Your task to perform on an android device: Open Youtube and go to "Your channel" Image 0: 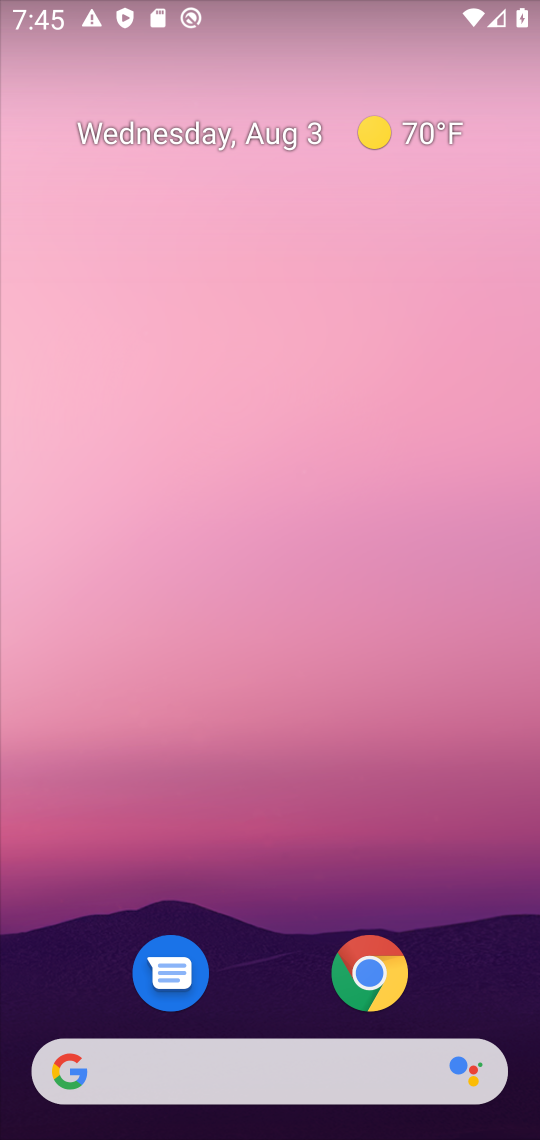
Step 0: press home button
Your task to perform on an android device: Open Youtube and go to "Your channel" Image 1: 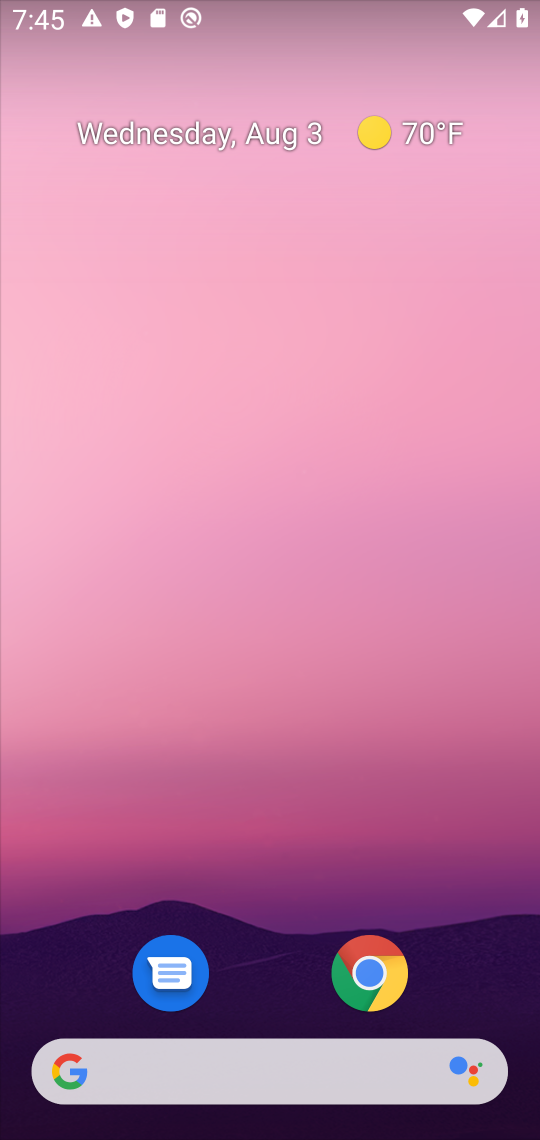
Step 1: drag from (285, 1008) to (355, 145)
Your task to perform on an android device: Open Youtube and go to "Your channel" Image 2: 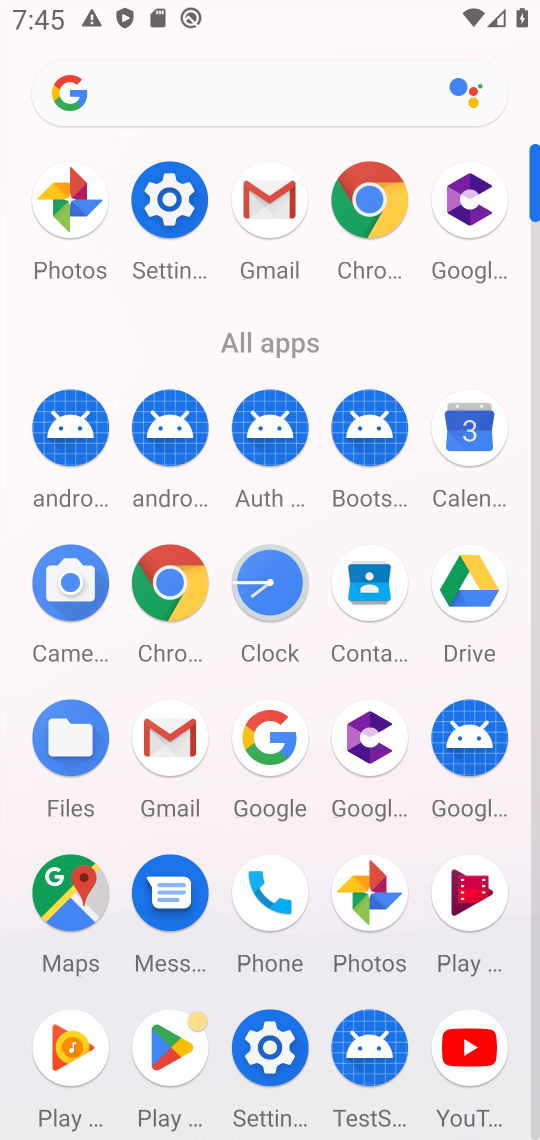
Step 2: click (470, 1034)
Your task to perform on an android device: Open Youtube and go to "Your channel" Image 3: 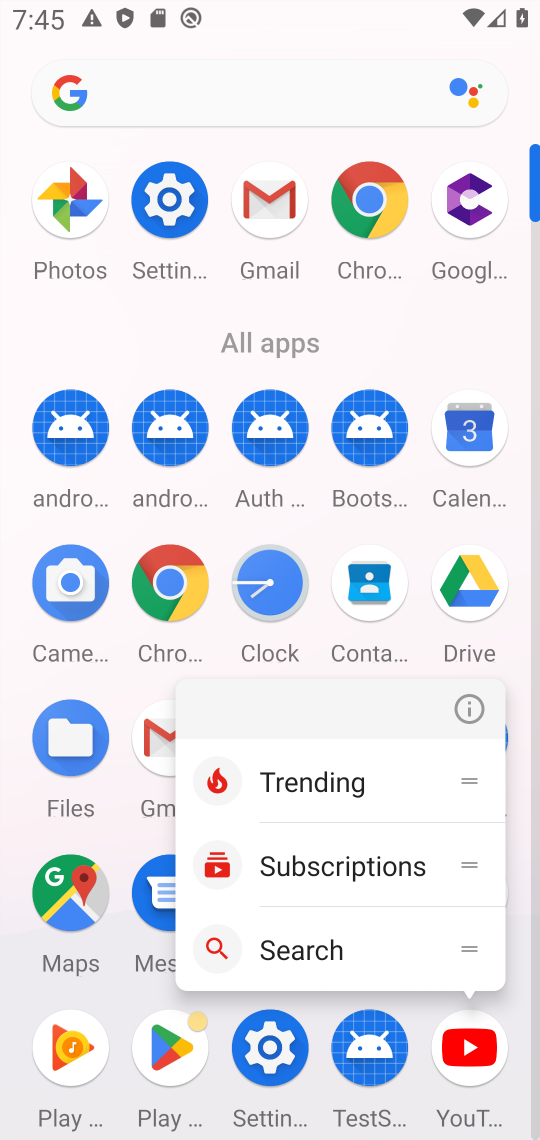
Step 3: click (470, 1034)
Your task to perform on an android device: Open Youtube and go to "Your channel" Image 4: 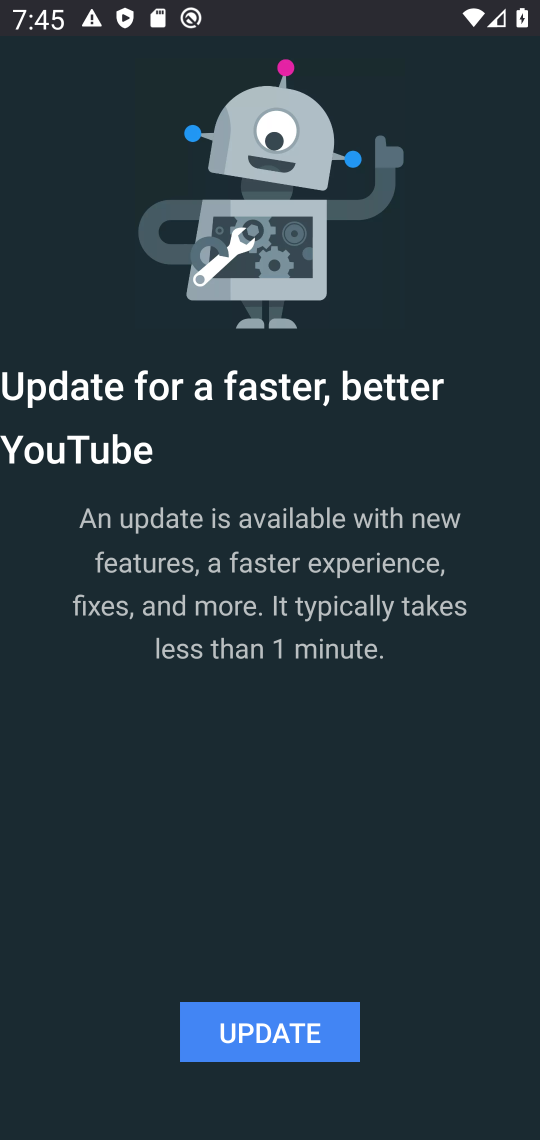
Step 4: click (262, 1025)
Your task to perform on an android device: Open Youtube and go to "Your channel" Image 5: 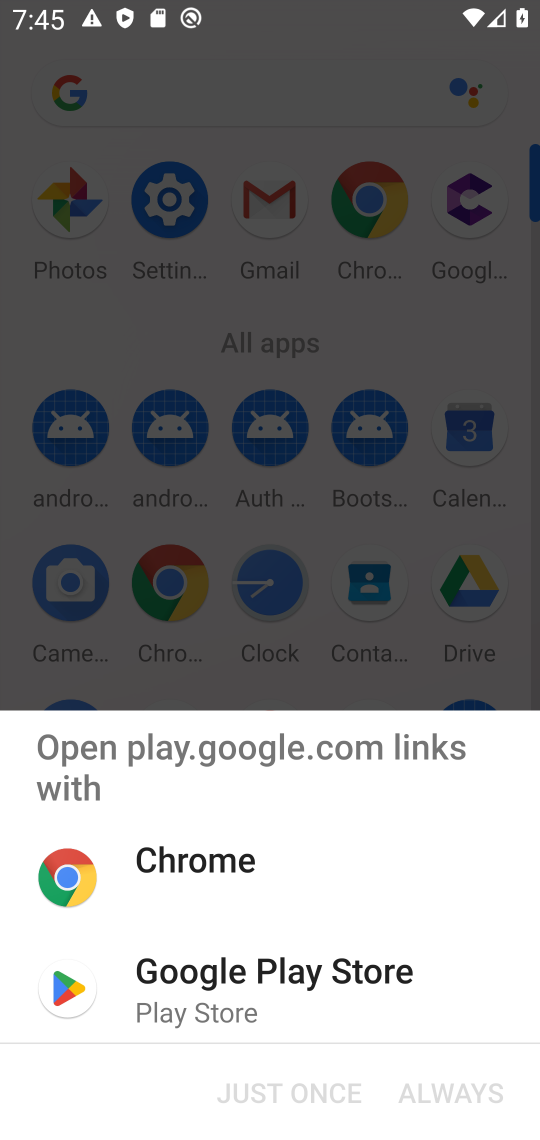
Step 5: click (177, 987)
Your task to perform on an android device: Open Youtube and go to "Your channel" Image 6: 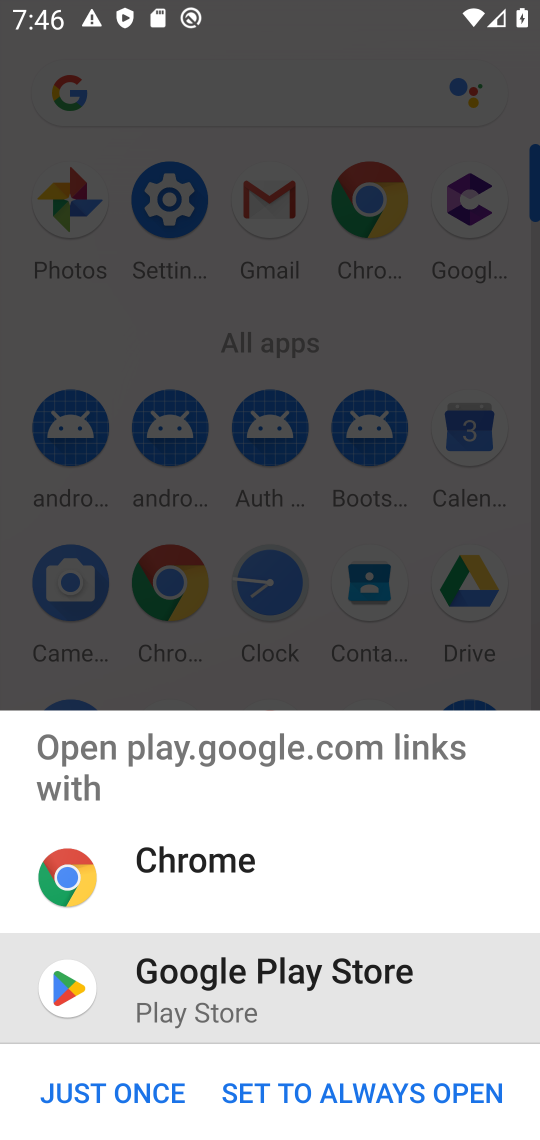
Step 6: click (124, 1096)
Your task to perform on an android device: Open Youtube and go to "Your channel" Image 7: 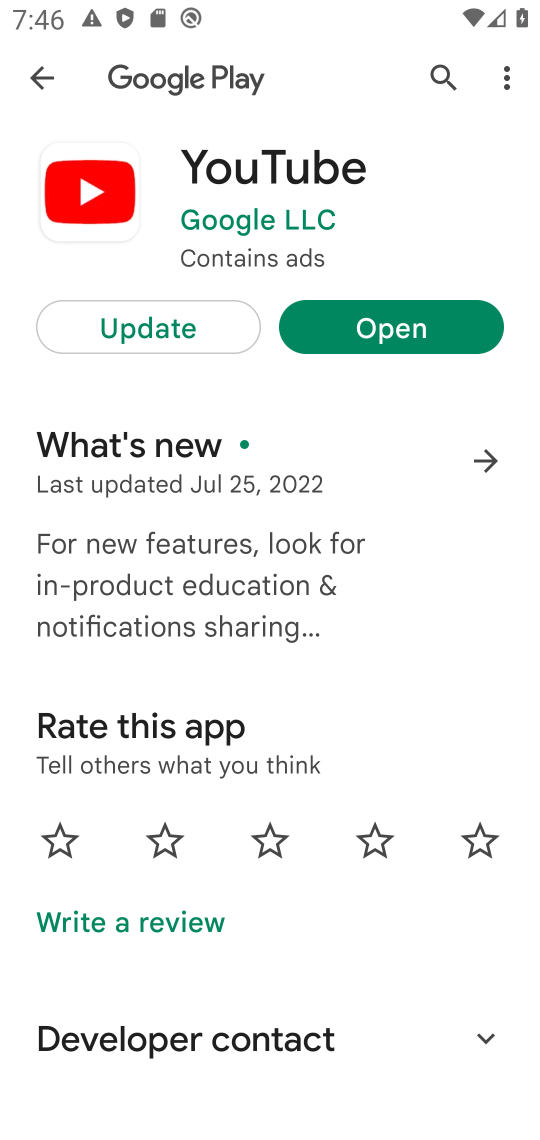
Step 7: click (146, 327)
Your task to perform on an android device: Open Youtube and go to "Your channel" Image 8: 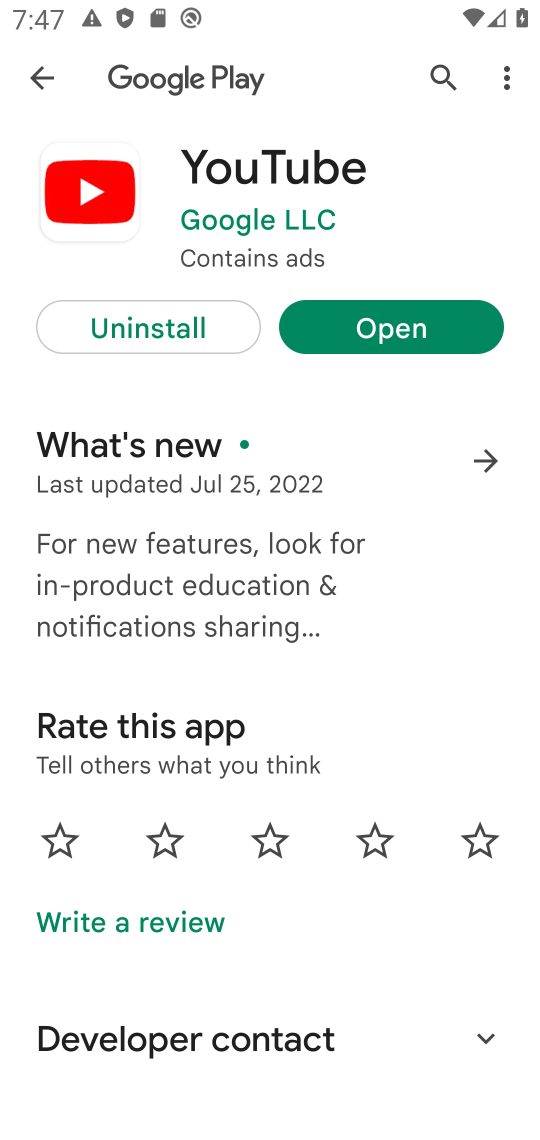
Step 8: click (388, 322)
Your task to perform on an android device: Open Youtube and go to "Your channel" Image 9: 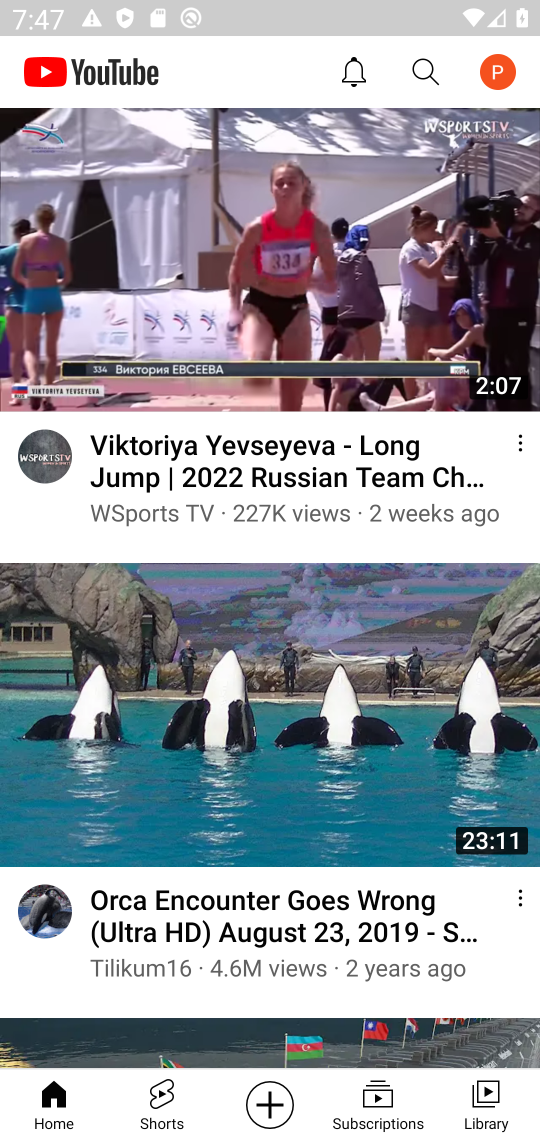
Step 9: click (491, 68)
Your task to perform on an android device: Open Youtube and go to "Your channel" Image 10: 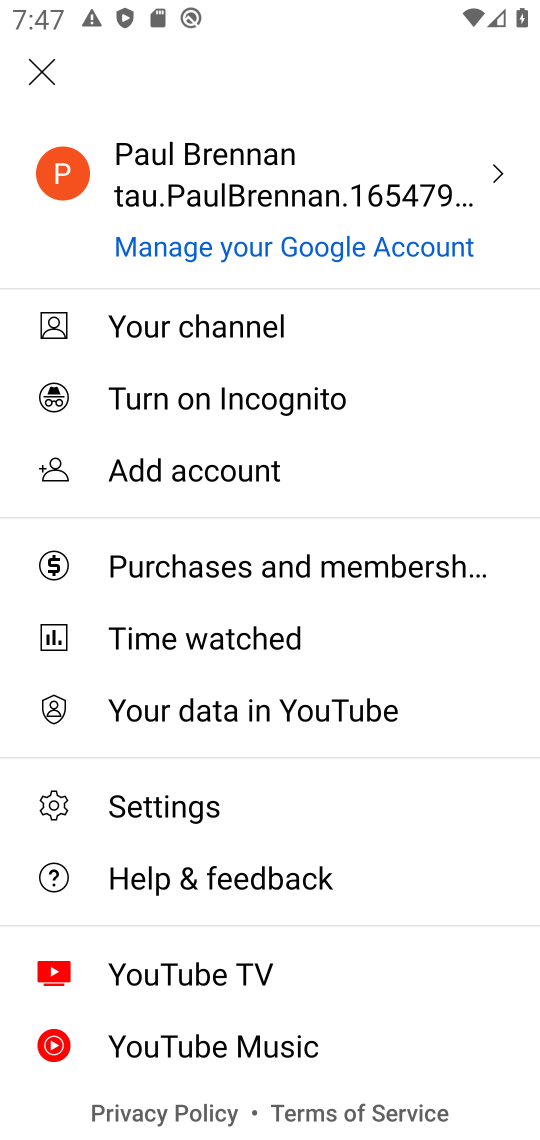
Step 10: click (201, 321)
Your task to perform on an android device: Open Youtube and go to "Your channel" Image 11: 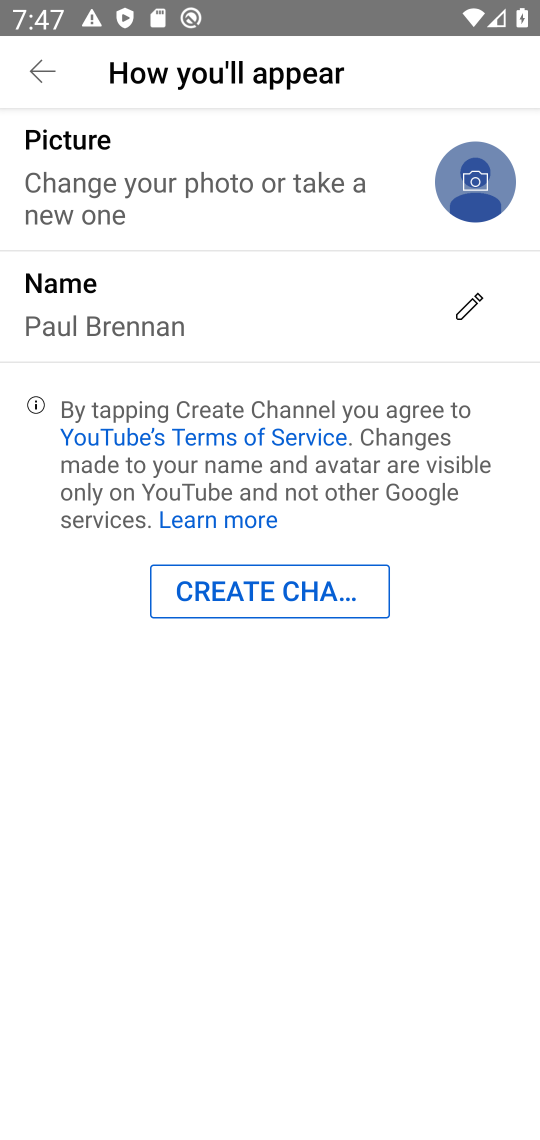
Step 11: task complete